Your task to perform on an android device: Search for the best rated headphones on Walmart Image 0: 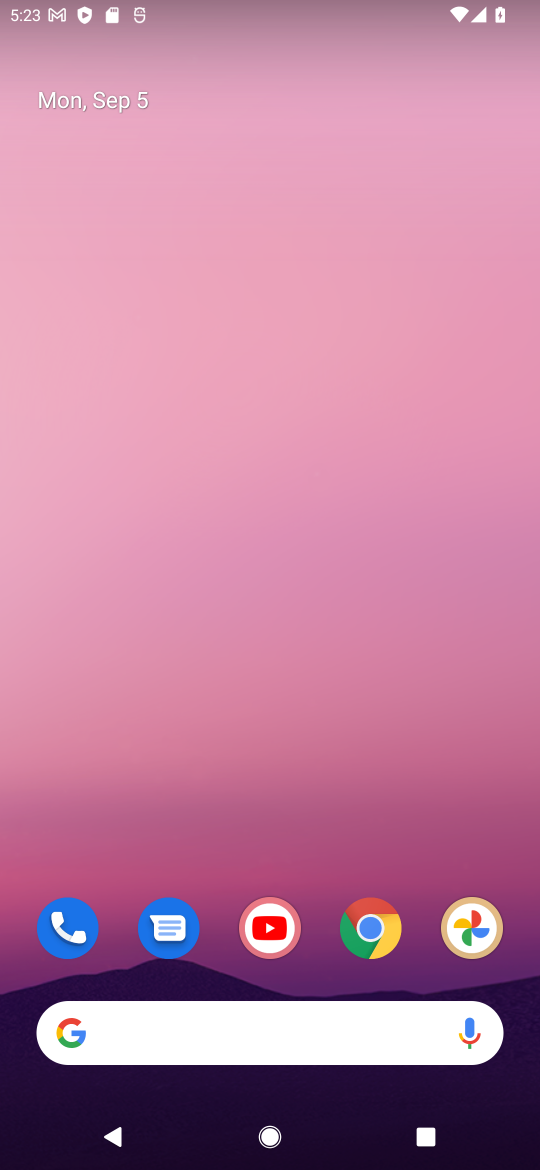
Step 0: click (377, 933)
Your task to perform on an android device: Search for the best rated headphones on Walmart Image 1: 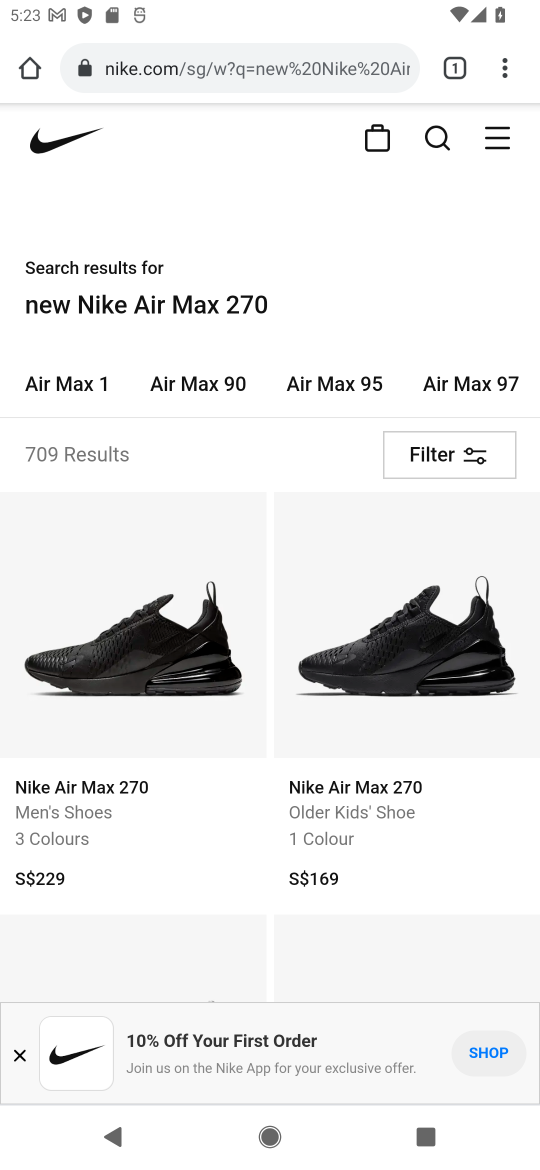
Step 1: click (306, 74)
Your task to perform on an android device: Search for the best rated headphones on Walmart Image 2: 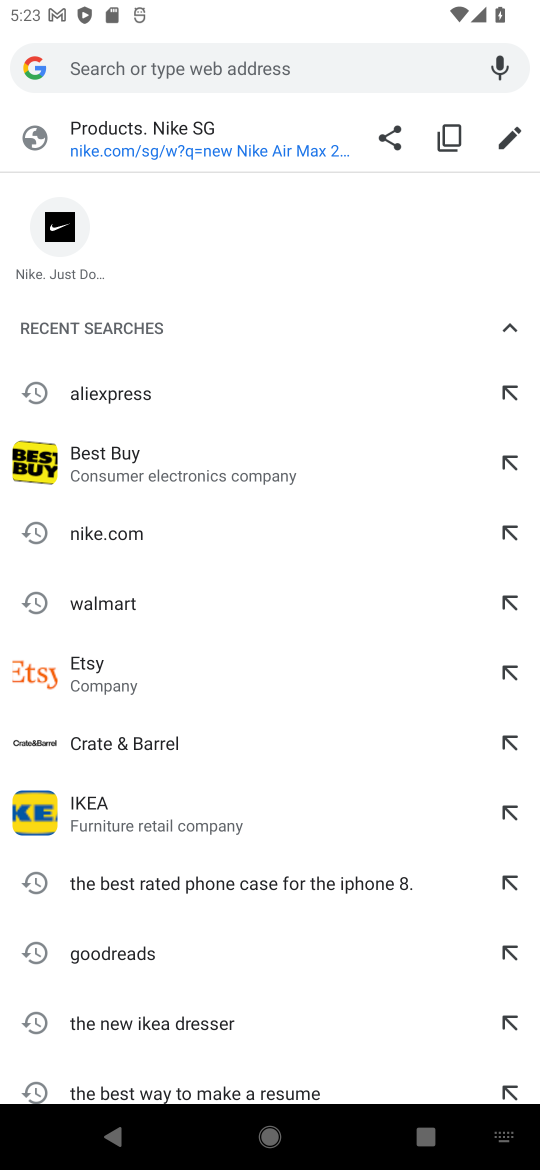
Step 2: type "Walmart"
Your task to perform on an android device: Search for the best rated headphones on Walmart Image 3: 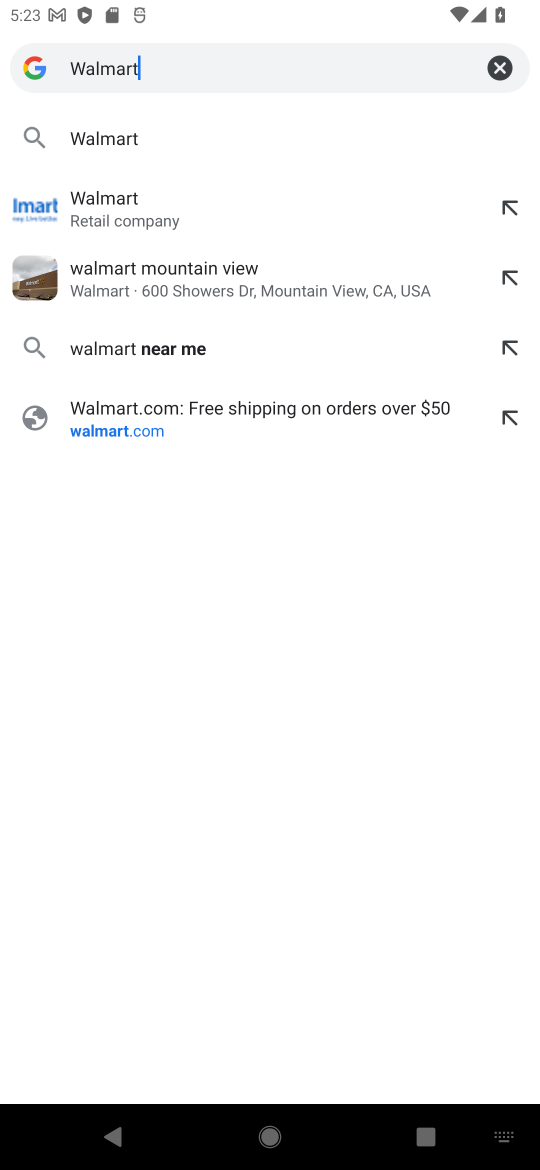
Step 3: click (281, 137)
Your task to perform on an android device: Search for the best rated headphones on Walmart Image 4: 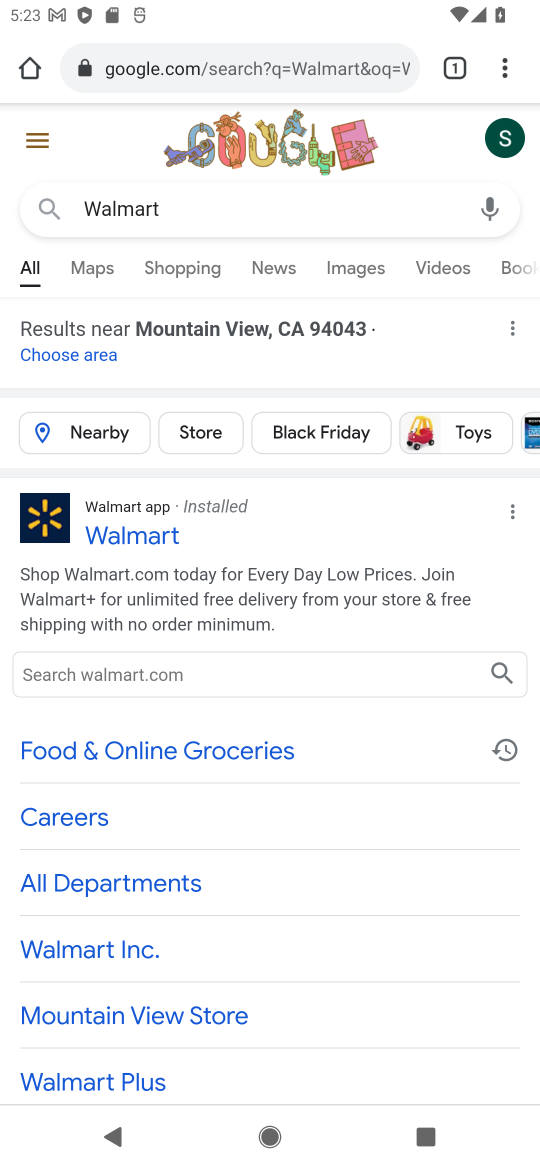
Step 4: click (146, 541)
Your task to perform on an android device: Search for the best rated headphones on Walmart Image 5: 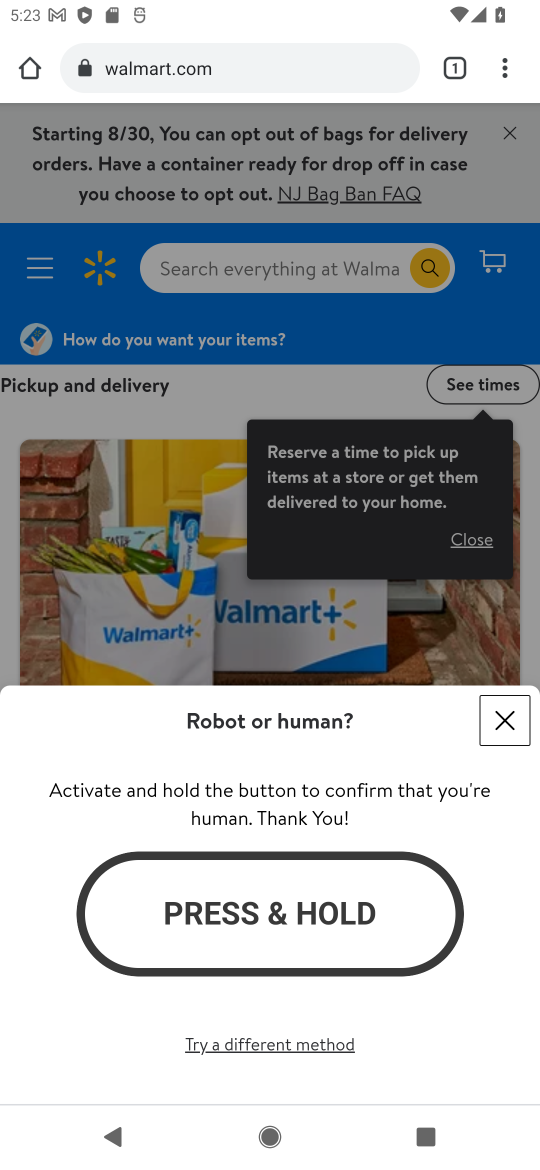
Step 5: click (303, 910)
Your task to perform on an android device: Search for the best rated headphones on Walmart Image 6: 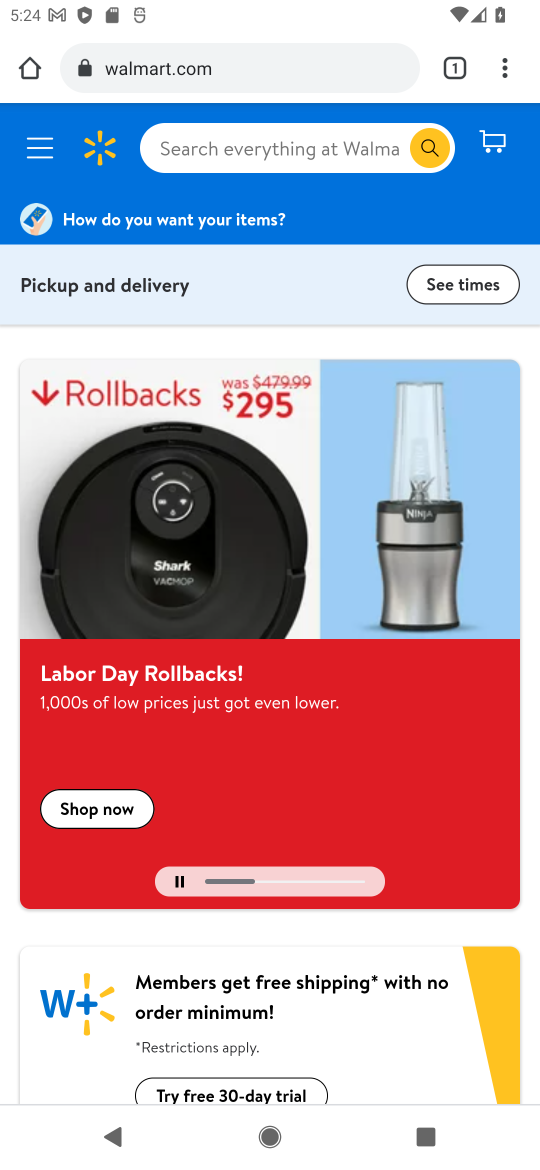
Step 6: click (498, 888)
Your task to perform on an android device: Search for the best rated headphones on Walmart Image 7: 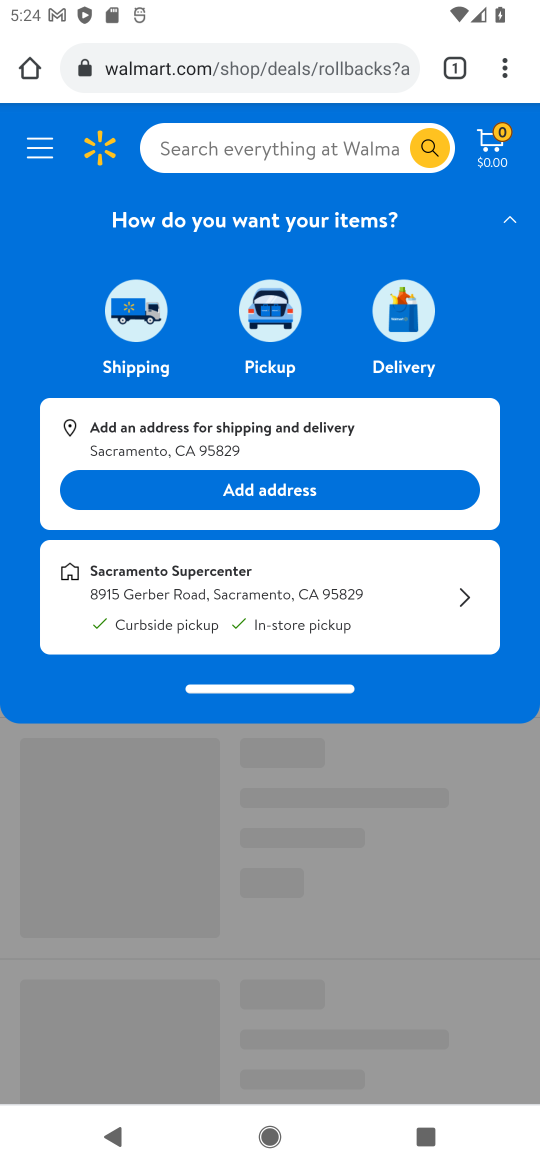
Step 7: click (277, 133)
Your task to perform on an android device: Search for the best rated headphones on Walmart Image 8: 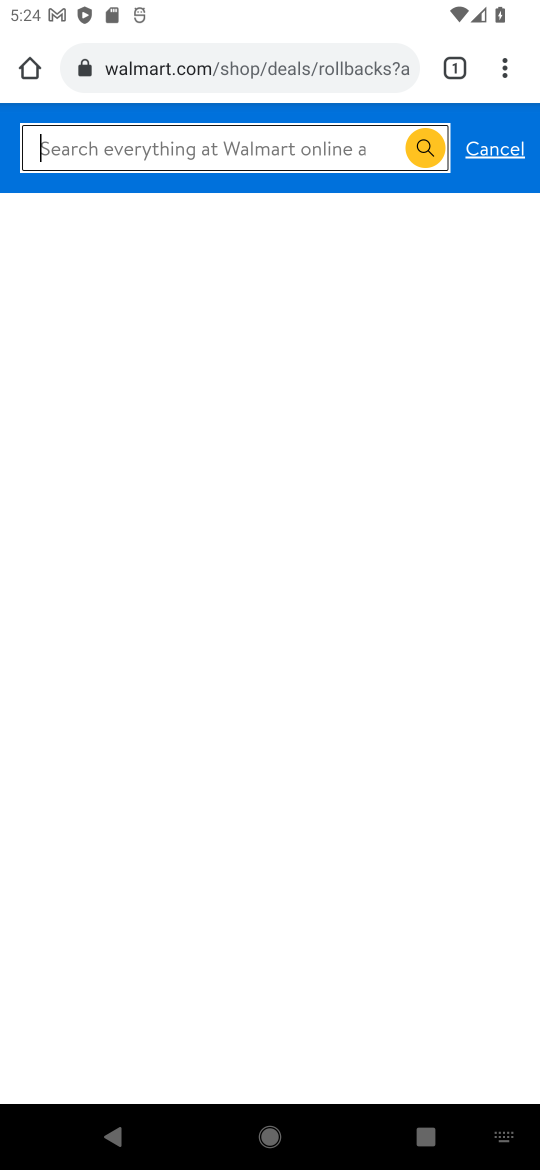
Step 8: type "the best rated headphone"
Your task to perform on an android device: Search for the best rated headphones on Walmart Image 9: 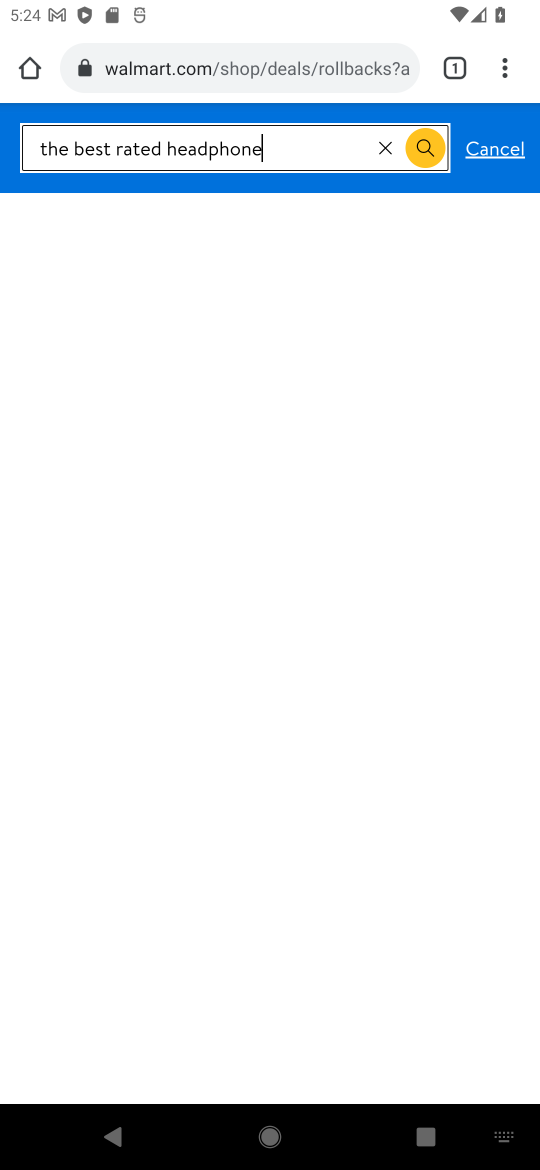
Step 9: click (440, 146)
Your task to perform on an android device: Search for the best rated headphones on Walmart Image 10: 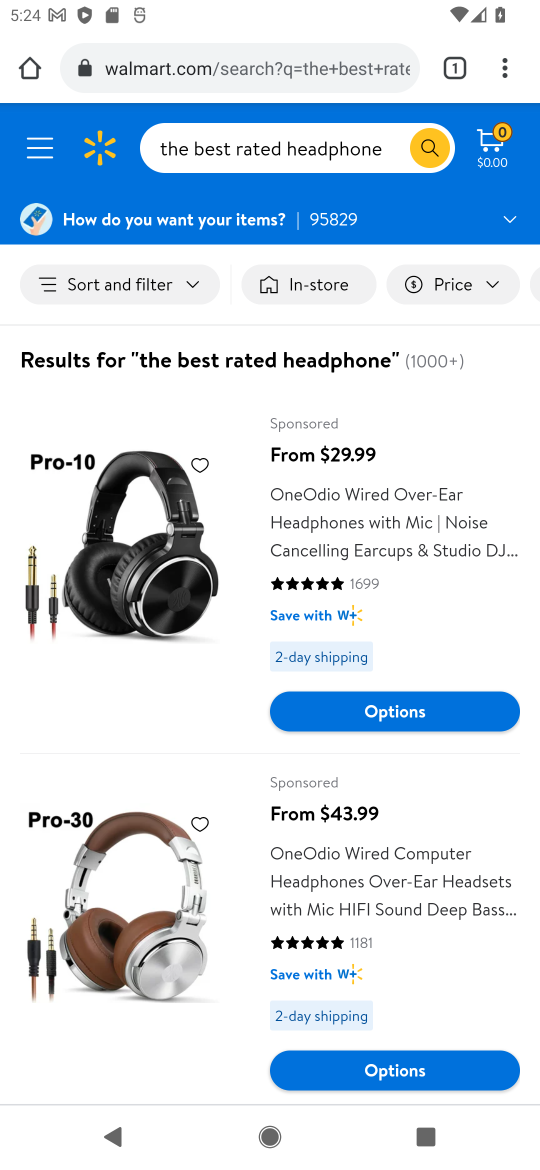
Step 10: task complete